Your task to perform on an android device: turn on improve location accuracy Image 0: 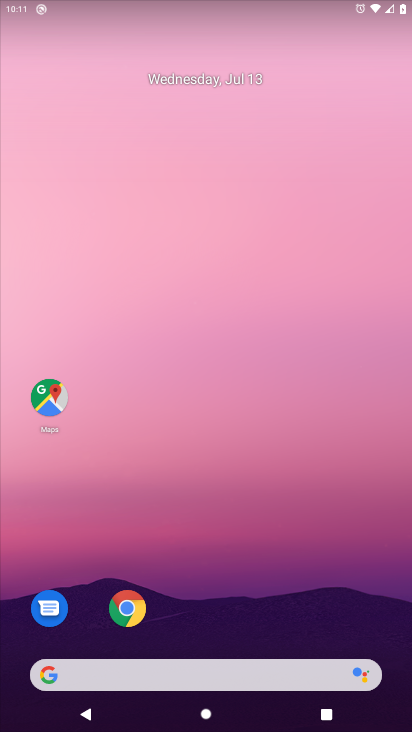
Step 0: drag from (43, 710) to (147, 117)
Your task to perform on an android device: turn on improve location accuracy Image 1: 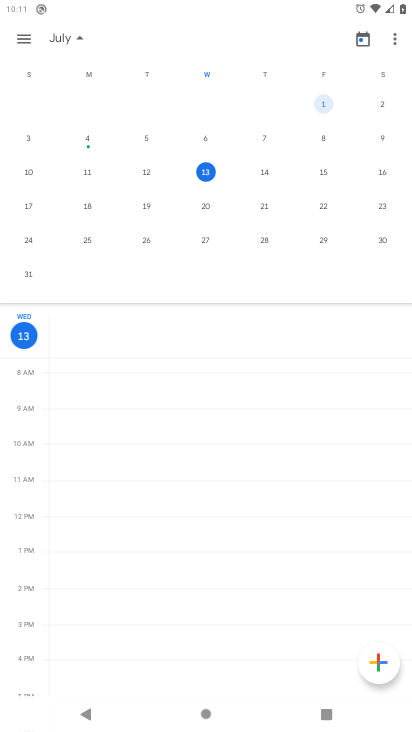
Step 1: task complete